Your task to perform on an android device: delete the emails in spam in the gmail app Image 0: 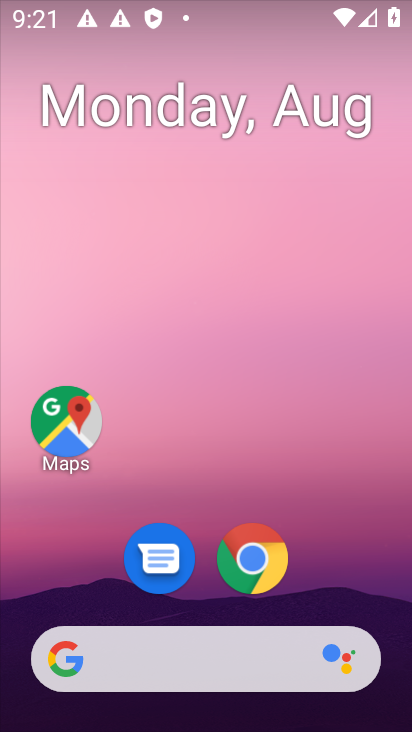
Step 0: drag from (204, 611) to (191, 210)
Your task to perform on an android device: delete the emails in spam in the gmail app Image 1: 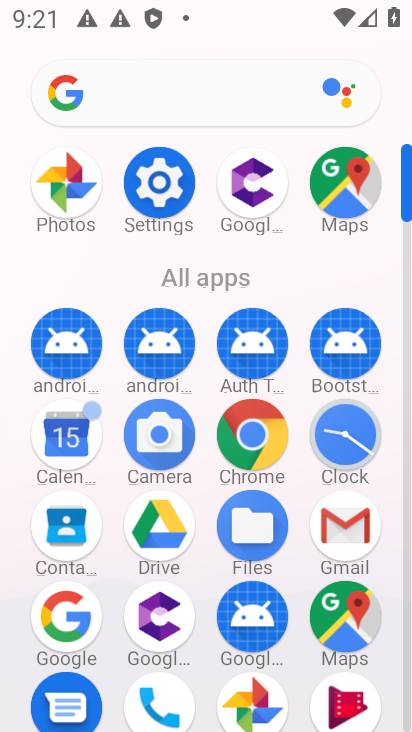
Step 1: click (341, 517)
Your task to perform on an android device: delete the emails in spam in the gmail app Image 2: 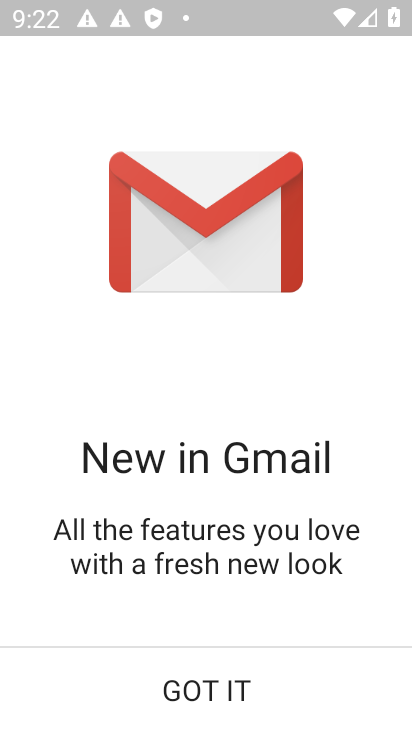
Step 2: click (214, 694)
Your task to perform on an android device: delete the emails in spam in the gmail app Image 3: 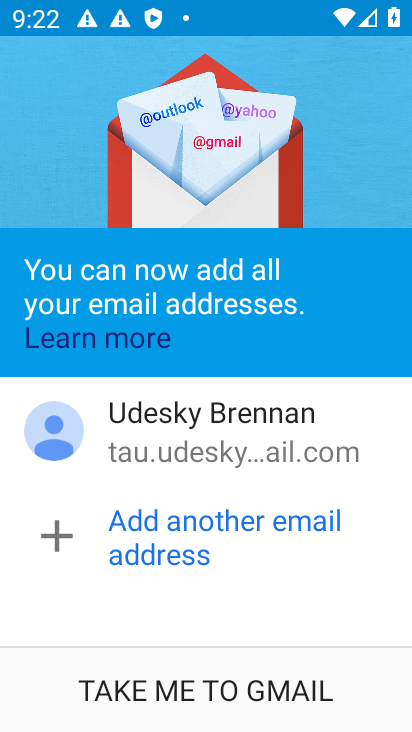
Step 3: click (188, 698)
Your task to perform on an android device: delete the emails in spam in the gmail app Image 4: 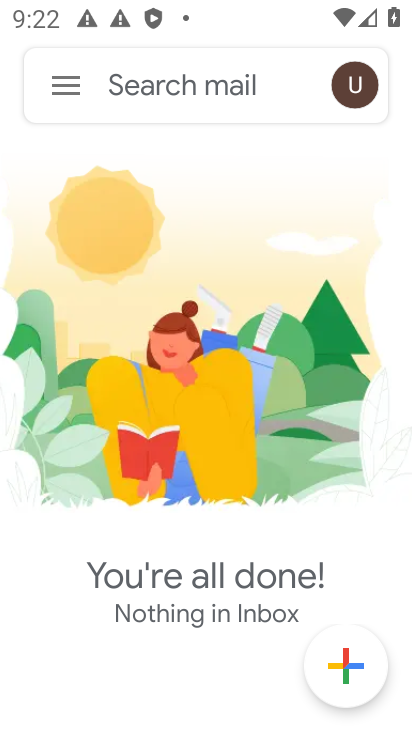
Step 4: click (65, 76)
Your task to perform on an android device: delete the emails in spam in the gmail app Image 5: 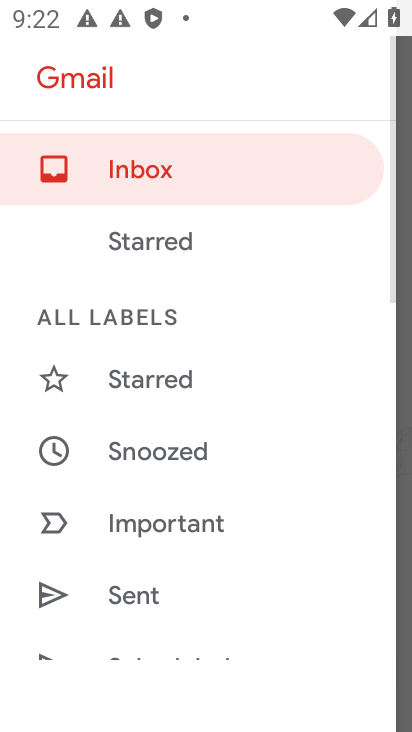
Step 5: drag from (172, 620) to (191, 168)
Your task to perform on an android device: delete the emails in spam in the gmail app Image 6: 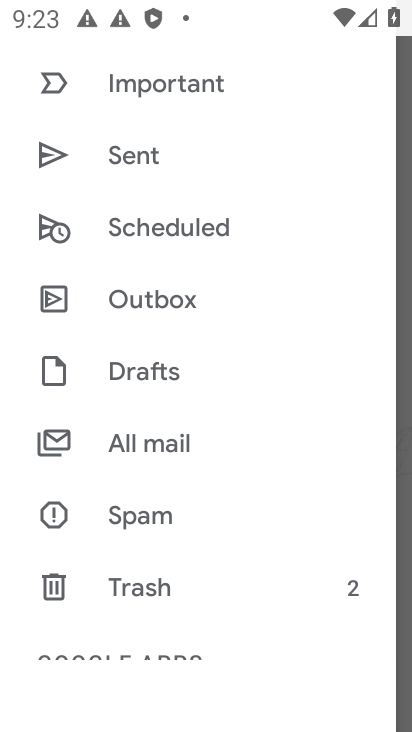
Step 6: click (168, 519)
Your task to perform on an android device: delete the emails in spam in the gmail app Image 7: 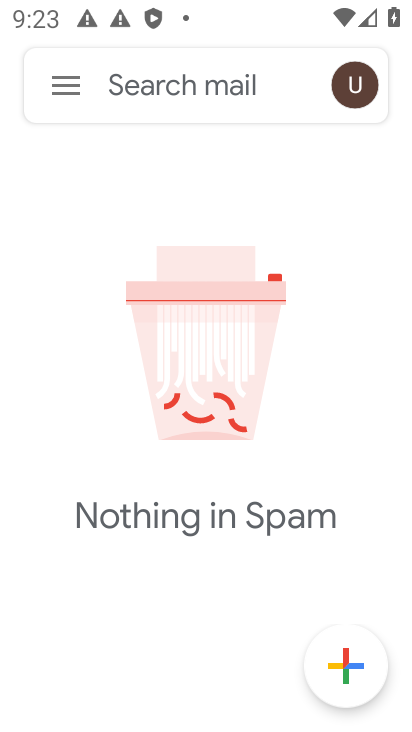
Step 7: task complete